Your task to perform on an android device: Go to Yahoo.com Image 0: 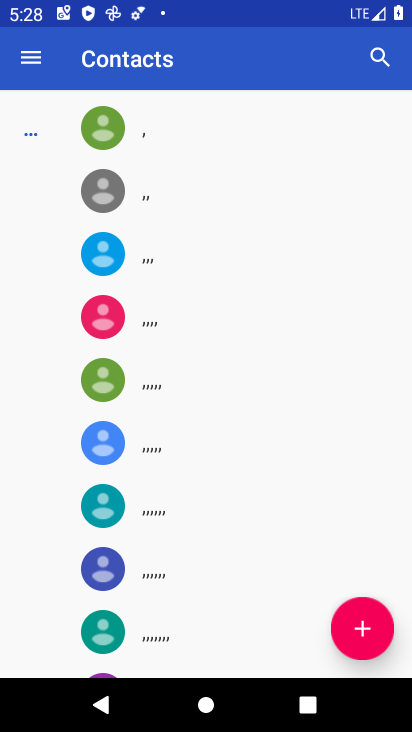
Step 0: press back button
Your task to perform on an android device: Go to Yahoo.com Image 1: 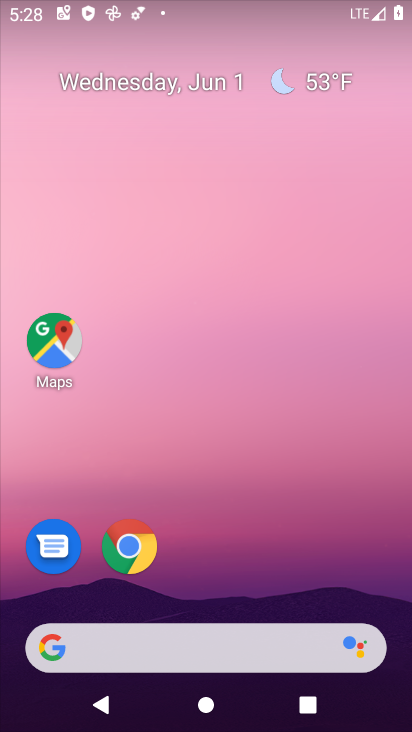
Step 1: drag from (235, 535) to (223, 16)
Your task to perform on an android device: Go to Yahoo.com Image 2: 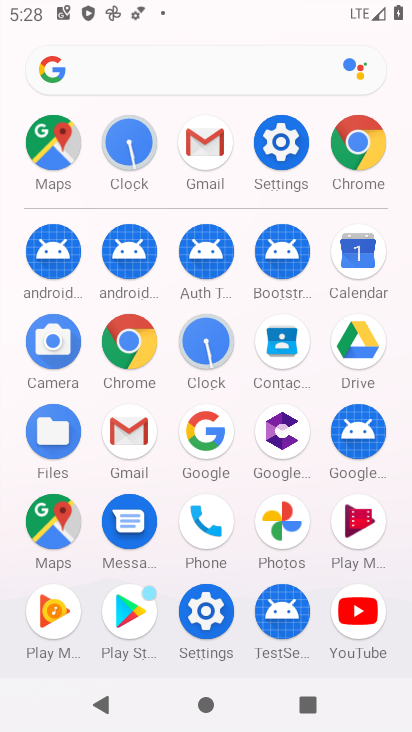
Step 2: click (118, 341)
Your task to perform on an android device: Go to Yahoo.com Image 3: 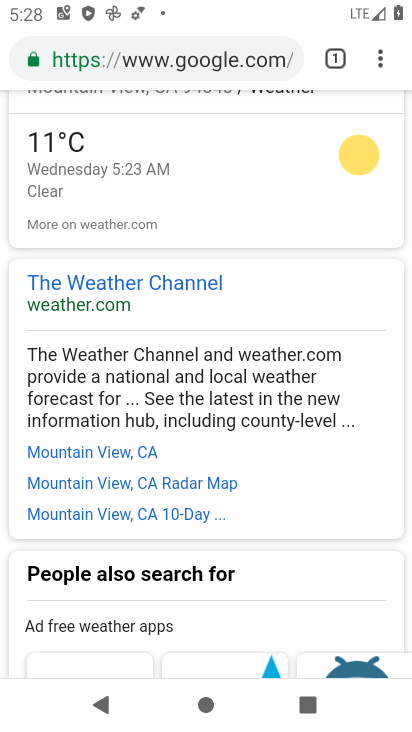
Step 3: click (212, 47)
Your task to perform on an android device: Go to Yahoo.com Image 4: 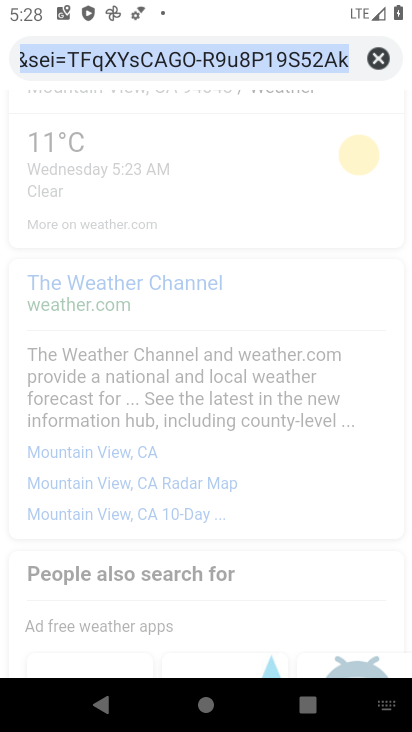
Step 4: click (370, 64)
Your task to perform on an android device: Go to Yahoo.com Image 5: 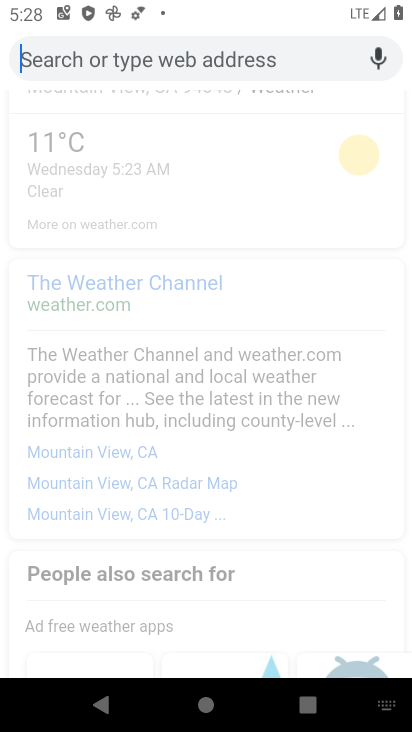
Step 5: type "Yahoo.com"
Your task to perform on an android device: Go to Yahoo.com Image 6: 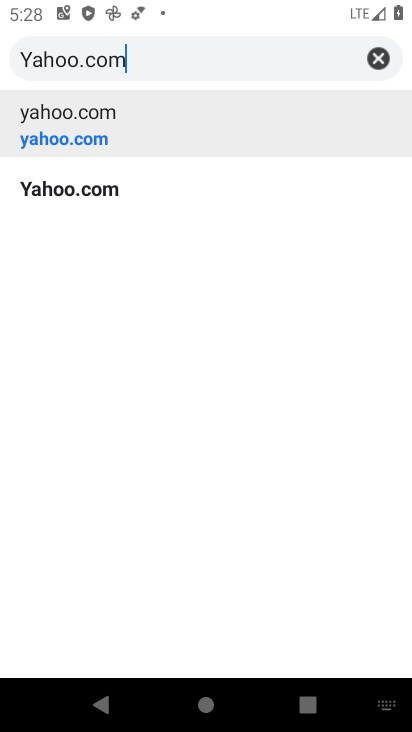
Step 6: type ""
Your task to perform on an android device: Go to Yahoo.com Image 7: 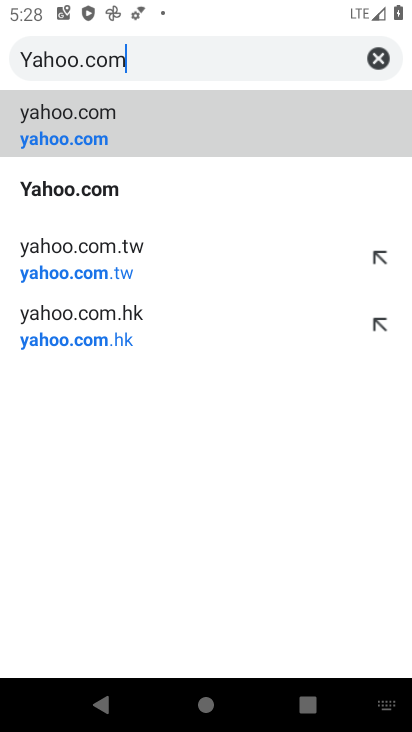
Step 7: click (133, 102)
Your task to perform on an android device: Go to Yahoo.com Image 8: 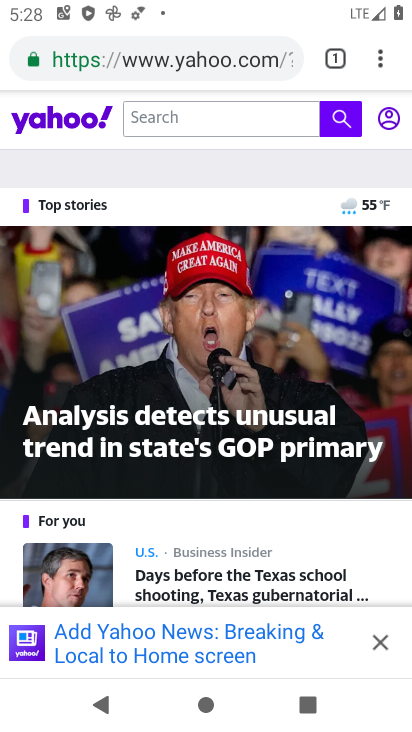
Step 8: task complete